Your task to perform on an android device: What's the weather going to be this weekend? Image 0: 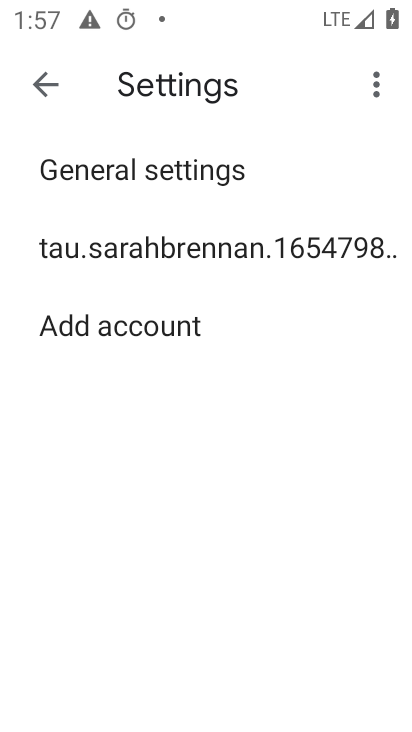
Step 0: press back button
Your task to perform on an android device: What's the weather going to be this weekend? Image 1: 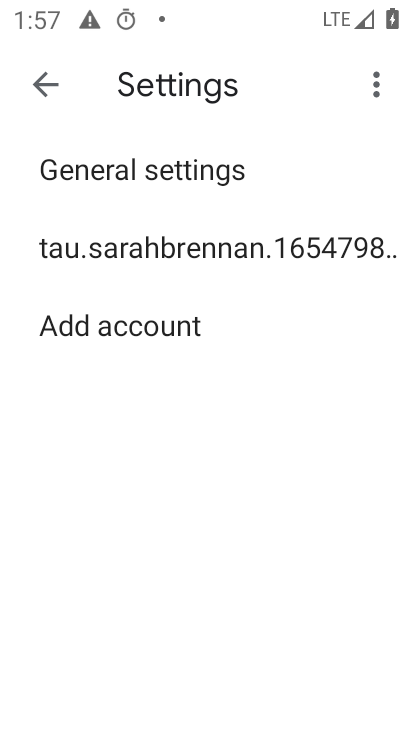
Step 1: press home button
Your task to perform on an android device: What's the weather going to be this weekend? Image 2: 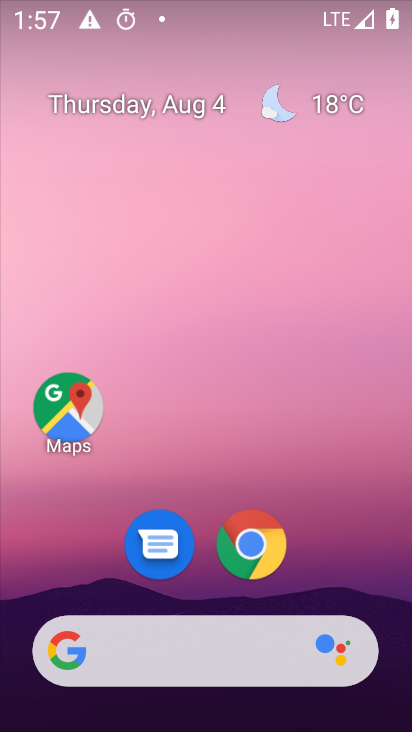
Step 2: drag from (393, 694) to (356, 187)
Your task to perform on an android device: What's the weather going to be this weekend? Image 3: 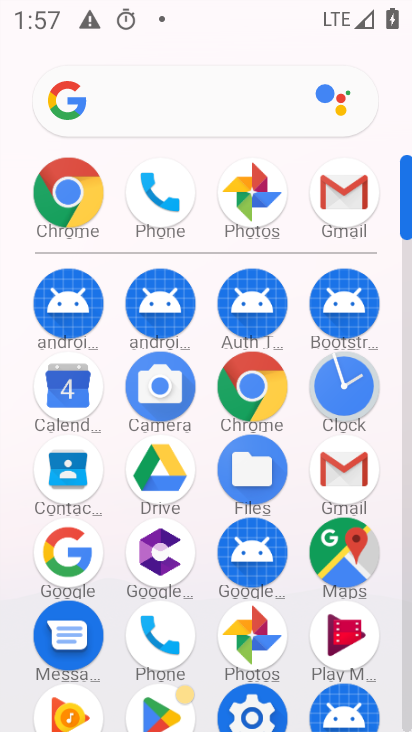
Step 3: click (75, 548)
Your task to perform on an android device: What's the weather going to be this weekend? Image 4: 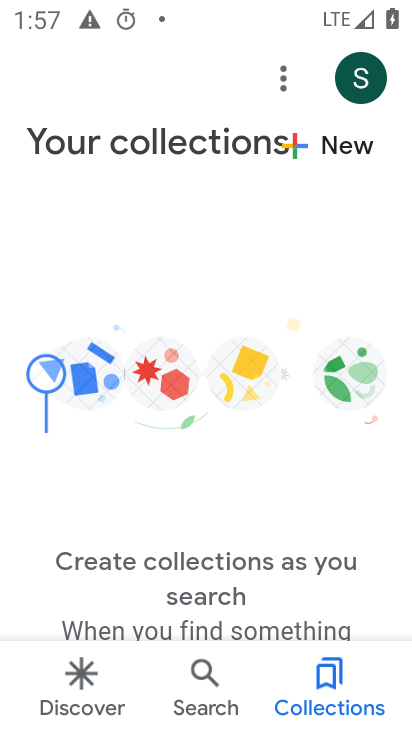
Step 4: drag from (271, 185) to (282, 491)
Your task to perform on an android device: What's the weather going to be this weekend? Image 5: 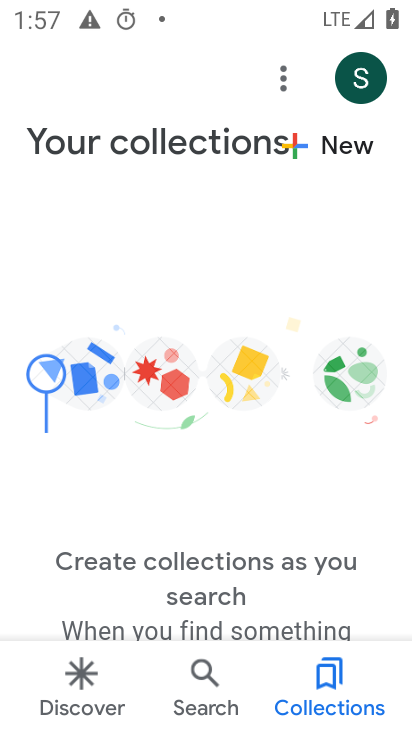
Step 5: press back button
Your task to perform on an android device: What's the weather going to be this weekend? Image 6: 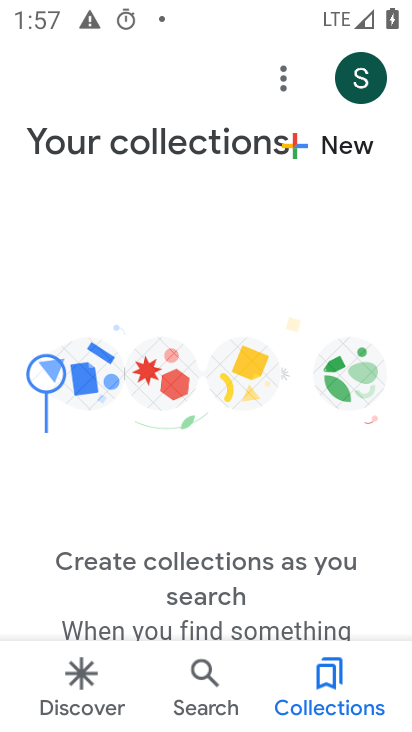
Step 6: press back button
Your task to perform on an android device: What's the weather going to be this weekend? Image 7: 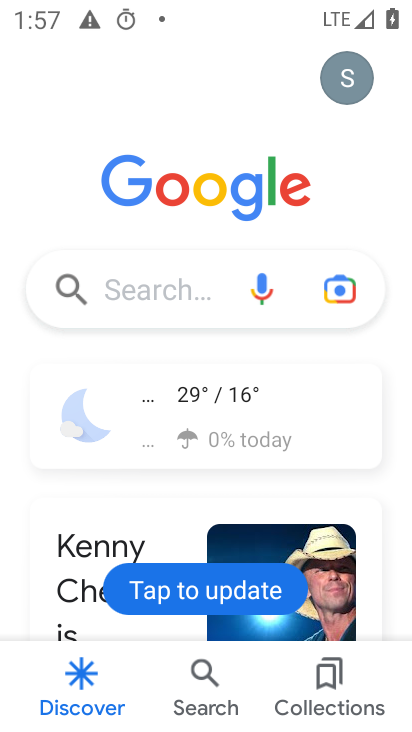
Step 7: click (237, 397)
Your task to perform on an android device: What's the weather going to be this weekend? Image 8: 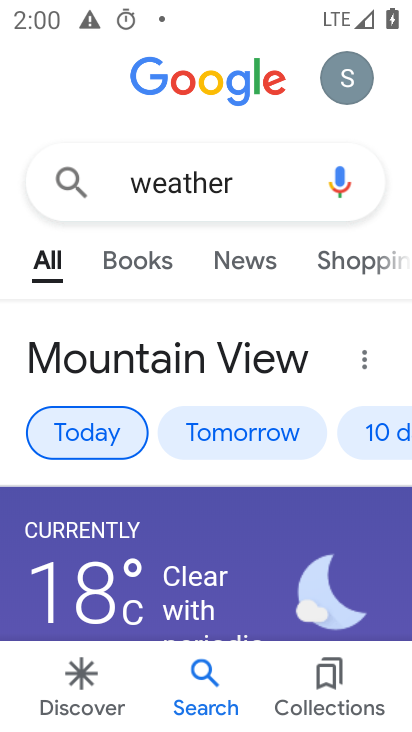
Step 8: click (367, 429)
Your task to perform on an android device: What's the weather going to be this weekend? Image 9: 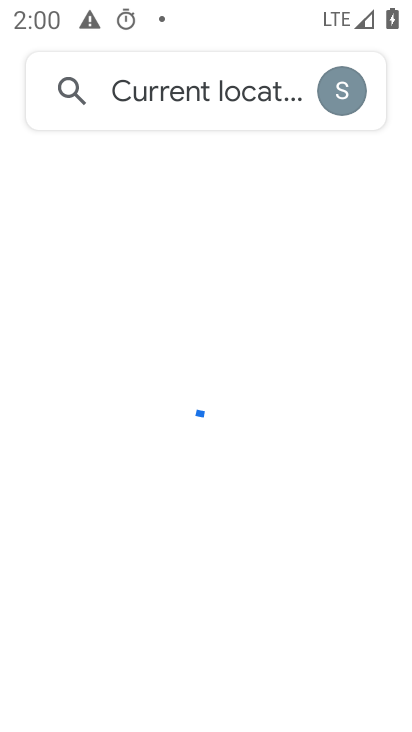
Step 9: task complete